Your task to perform on an android device: Open the calendar and show me this week's events Image 0: 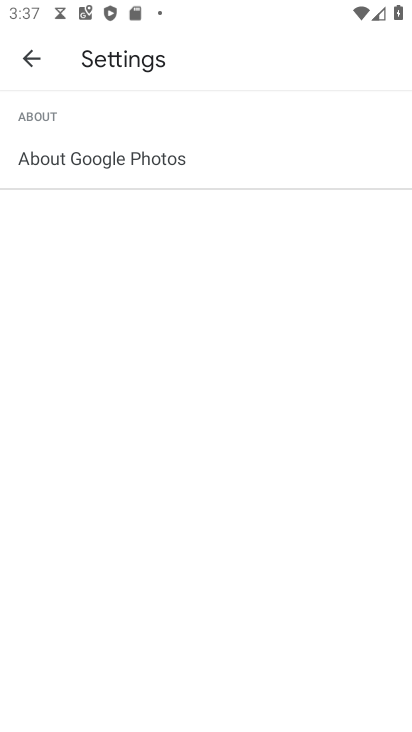
Step 0: press home button
Your task to perform on an android device: Open the calendar and show me this week's events Image 1: 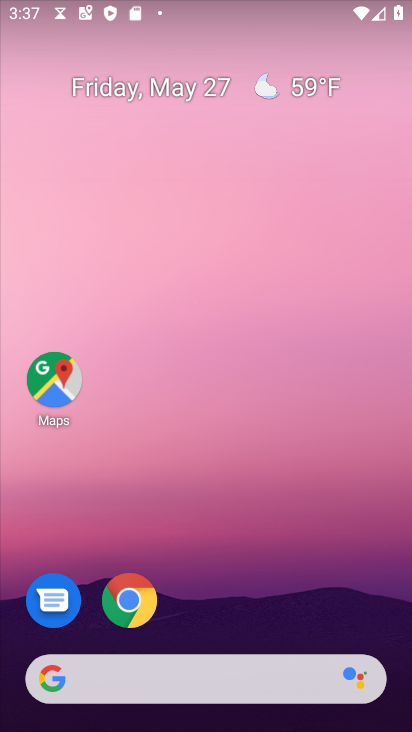
Step 1: drag from (293, 588) to (240, 99)
Your task to perform on an android device: Open the calendar and show me this week's events Image 2: 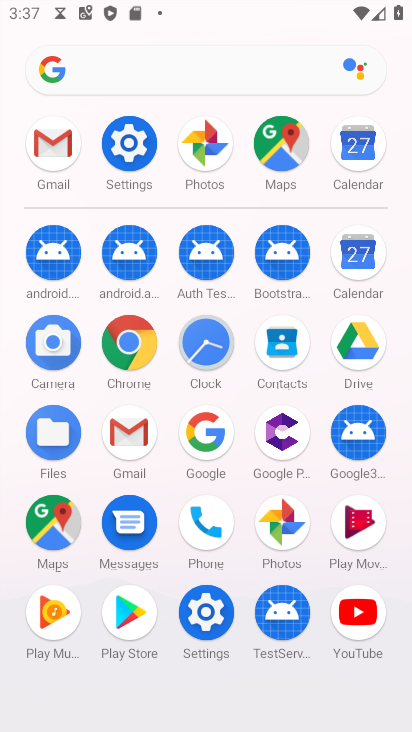
Step 2: click (362, 146)
Your task to perform on an android device: Open the calendar and show me this week's events Image 3: 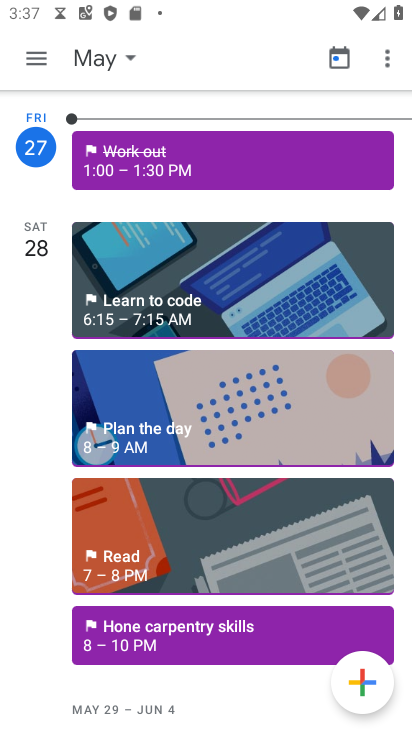
Step 3: click (128, 53)
Your task to perform on an android device: Open the calendar and show me this week's events Image 4: 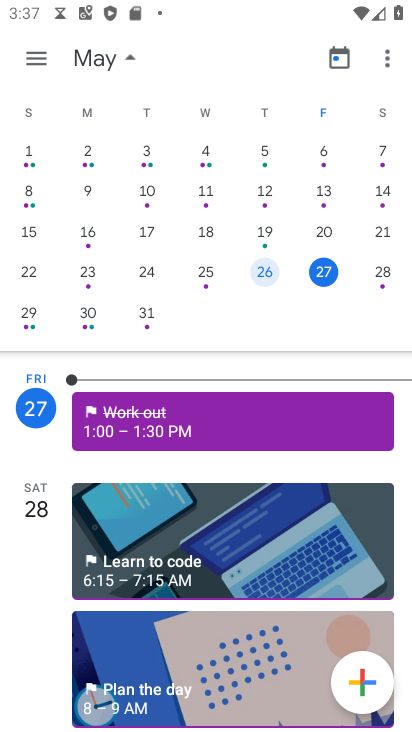
Step 4: click (343, 57)
Your task to perform on an android device: Open the calendar and show me this week's events Image 5: 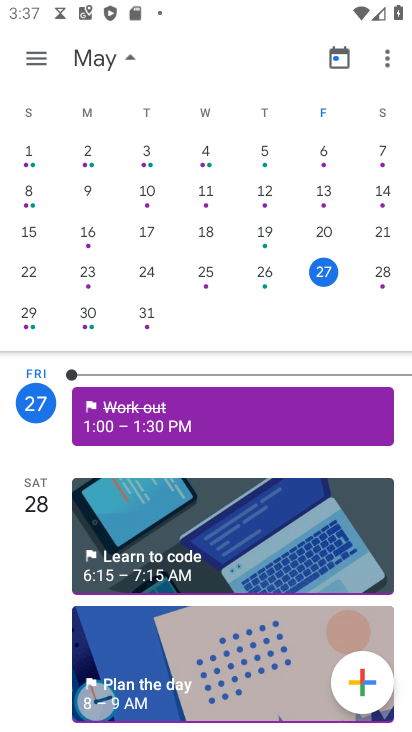
Step 5: click (343, 57)
Your task to perform on an android device: Open the calendar and show me this week's events Image 6: 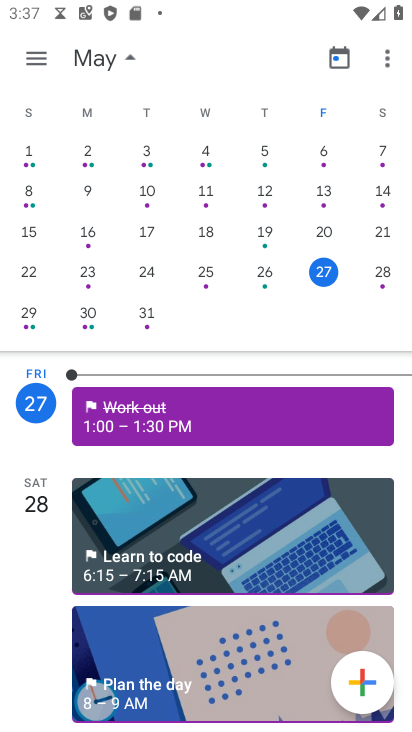
Step 6: click (31, 52)
Your task to perform on an android device: Open the calendar and show me this week's events Image 7: 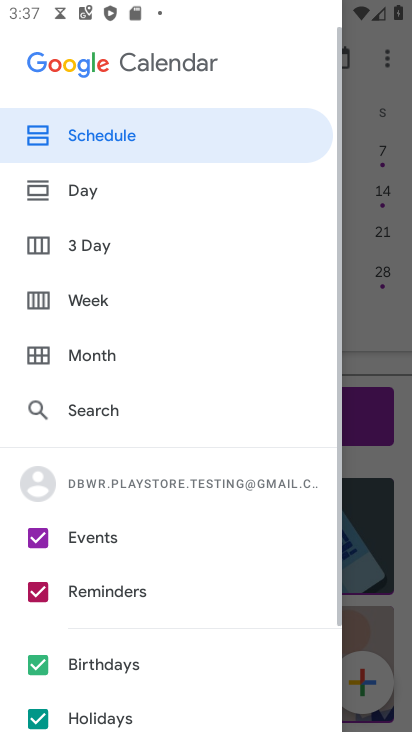
Step 7: click (105, 137)
Your task to perform on an android device: Open the calendar and show me this week's events Image 8: 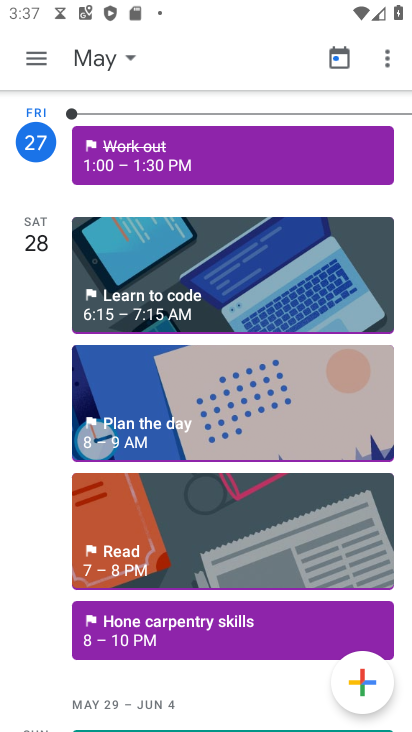
Step 8: task complete